Your task to perform on an android device: turn off data saver in the chrome app Image 0: 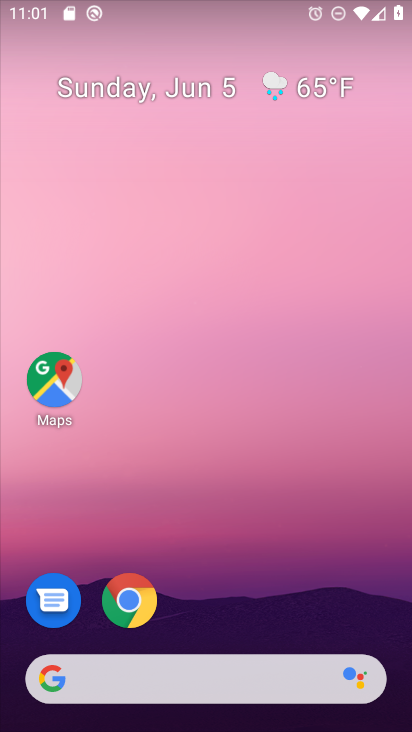
Step 0: drag from (384, 628) to (270, 51)
Your task to perform on an android device: turn off data saver in the chrome app Image 1: 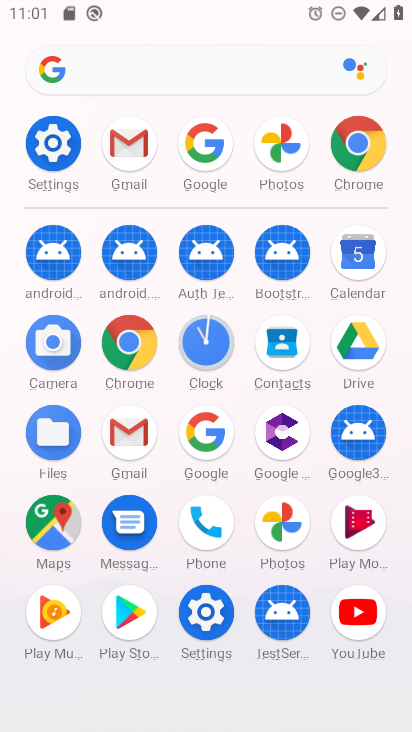
Step 1: click (348, 151)
Your task to perform on an android device: turn off data saver in the chrome app Image 2: 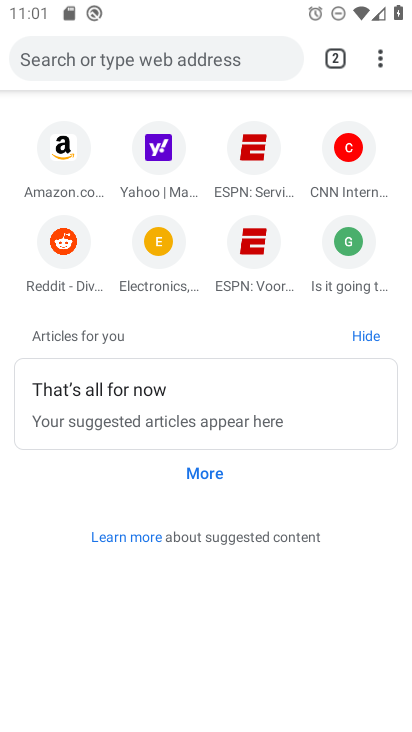
Step 2: click (386, 51)
Your task to perform on an android device: turn off data saver in the chrome app Image 3: 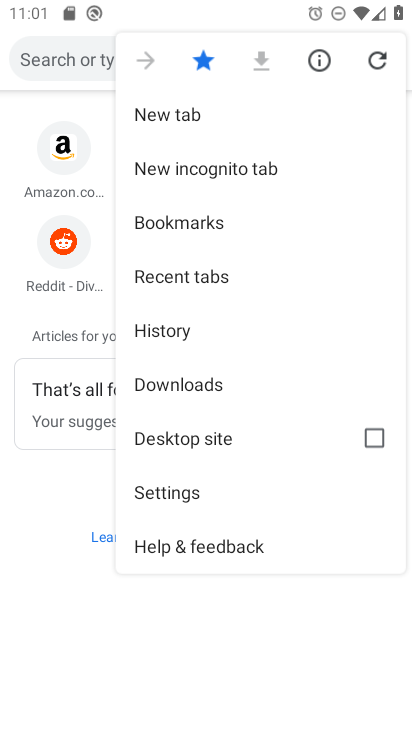
Step 3: click (176, 493)
Your task to perform on an android device: turn off data saver in the chrome app Image 4: 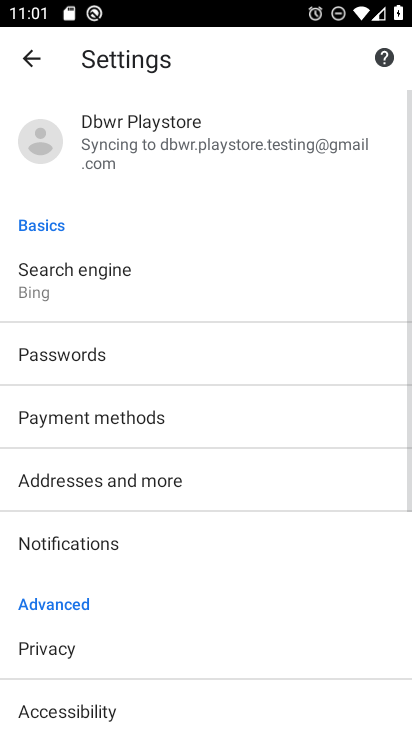
Step 4: drag from (142, 687) to (175, 230)
Your task to perform on an android device: turn off data saver in the chrome app Image 5: 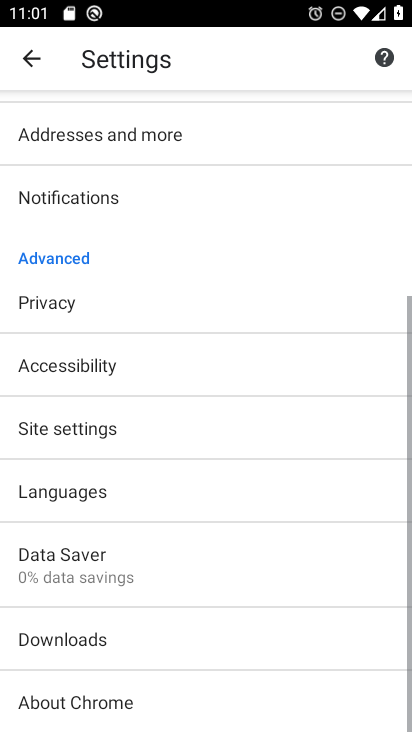
Step 5: click (197, 551)
Your task to perform on an android device: turn off data saver in the chrome app Image 6: 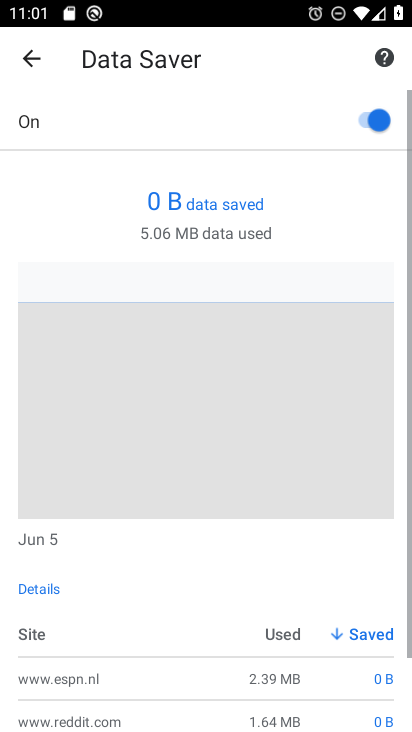
Step 6: click (363, 121)
Your task to perform on an android device: turn off data saver in the chrome app Image 7: 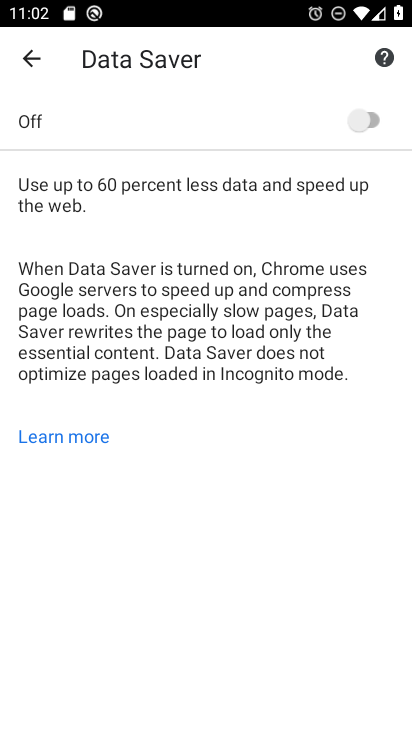
Step 7: task complete